Your task to perform on an android device: change timer sound Image 0: 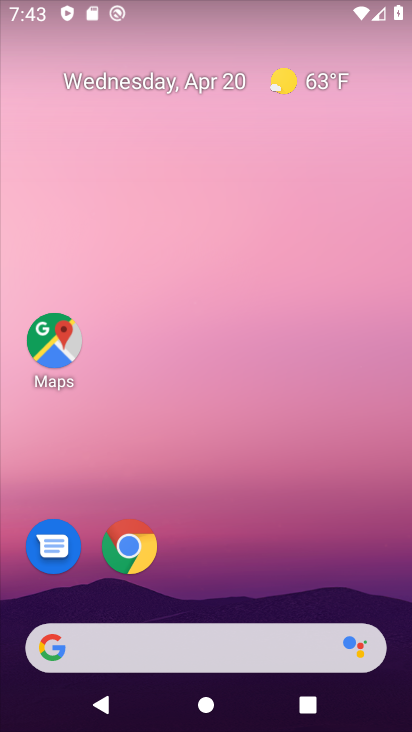
Step 0: drag from (337, 540) to (384, 88)
Your task to perform on an android device: change timer sound Image 1: 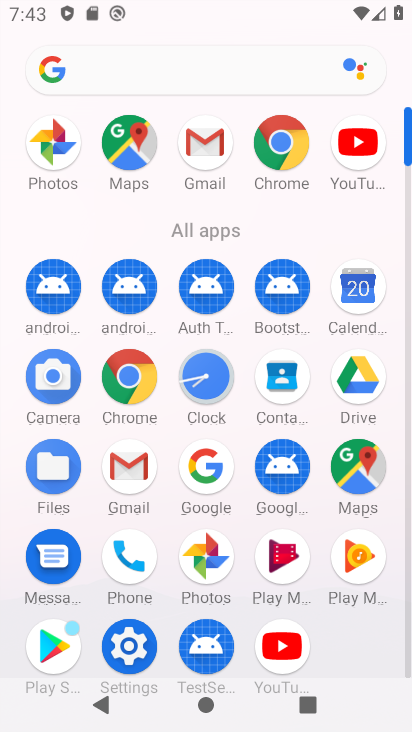
Step 1: click (224, 381)
Your task to perform on an android device: change timer sound Image 2: 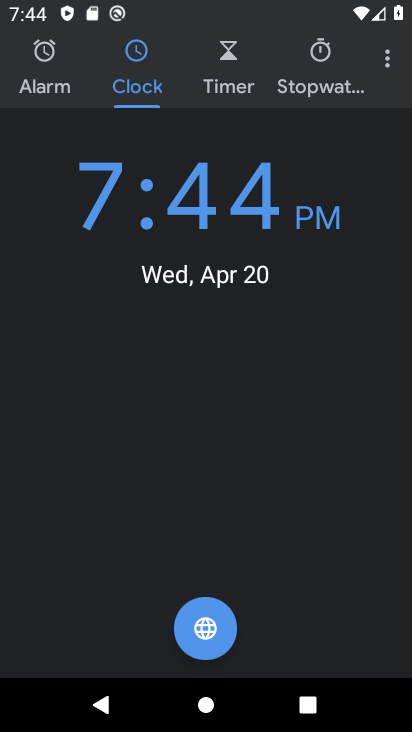
Step 2: click (389, 60)
Your task to perform on an android device: change timer sound Image 3: 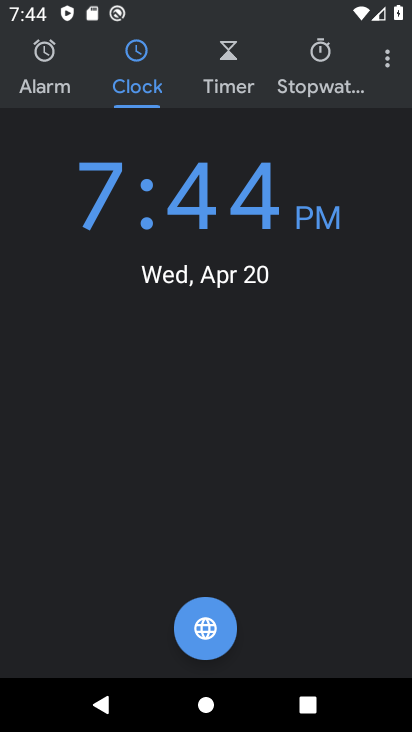
Step 3: click (389, 60)
Your task to perform on an android device: change timer sound Image 4: 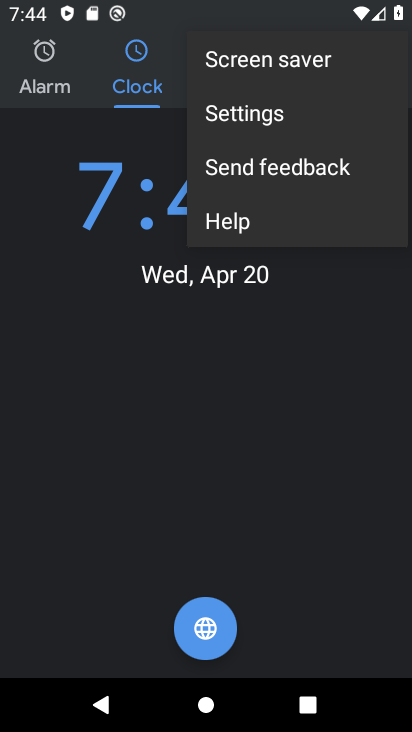
Step 4: click (316, 108)
Your task to perform on an android device: change timer sound Image 5: 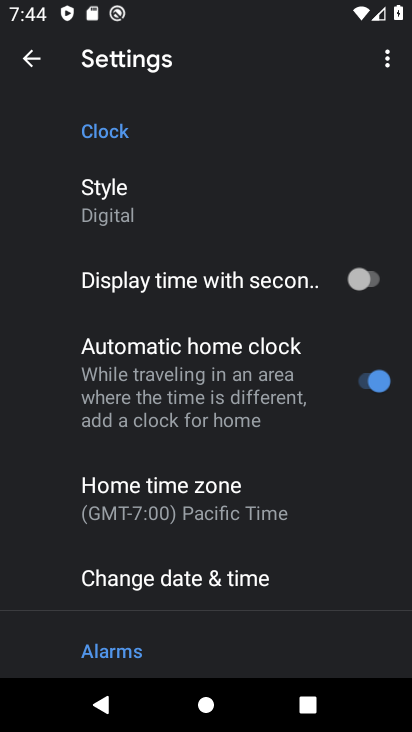
Step 5: drag from (294, 541) to (309, 136)
Your task to perform on an android device: change timer sound Image 6: 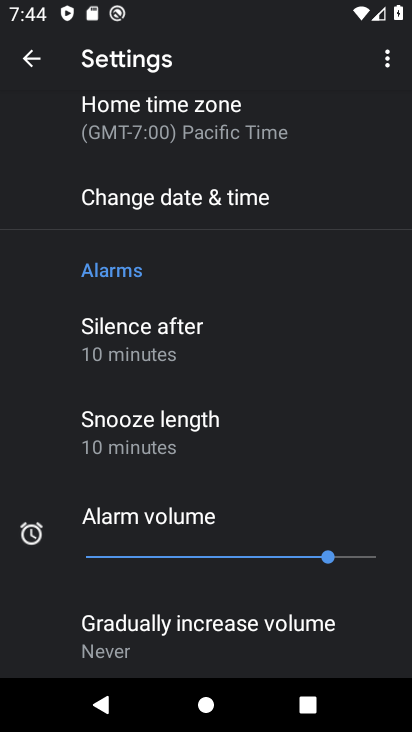
Step 6: drag from (252, 443) to (288, 80)
Your task to perform on an android device: change timer sound Image 7: 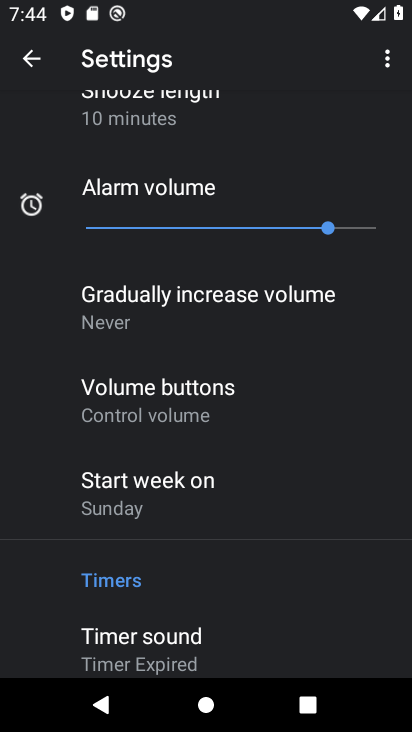
Step 7: drag from (243, 453) to (294, 190)
Your task to perform on an android device: change timer sound Image 8: 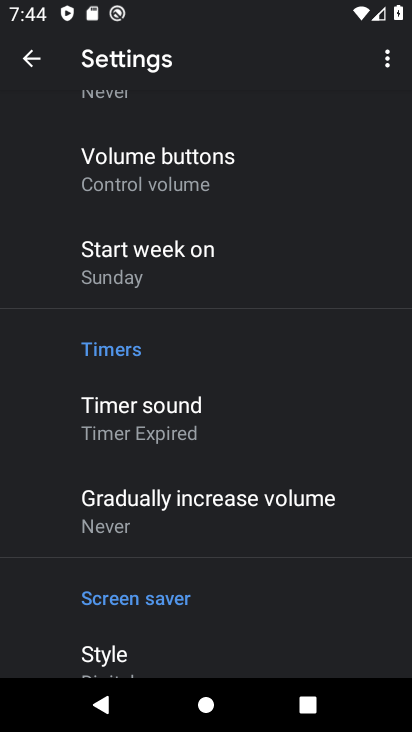
Step 8: click (228, 413)
Your task to perform on an android device: change timer sound Image 9: 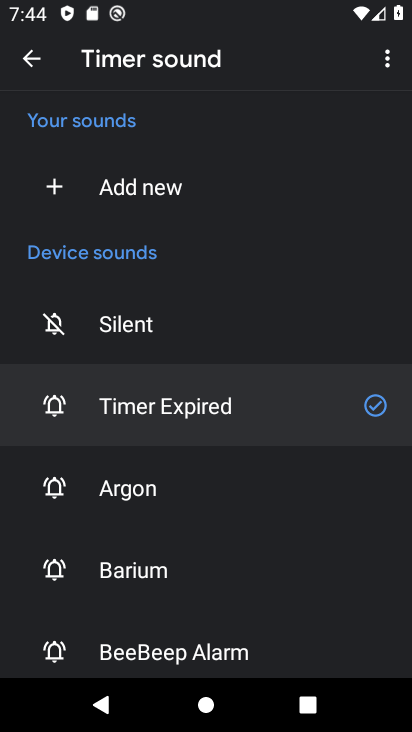
Step 9: click (217, 490)
Your task to perform on an android device: change timer sound Image 10: 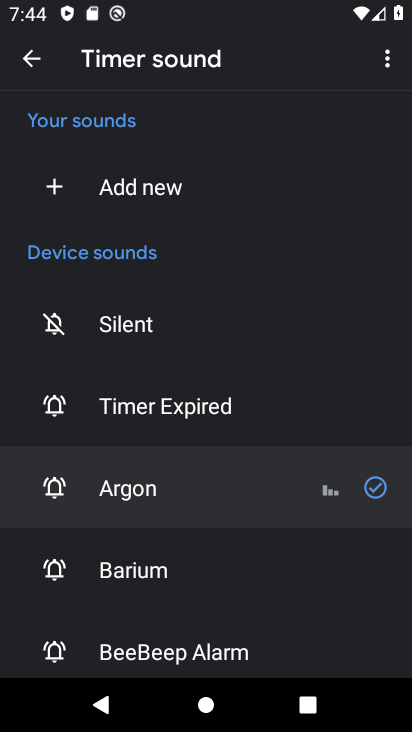
Step 10: task complete